Your task to perform on an android device: Open a new window in the chrome app Image 0: 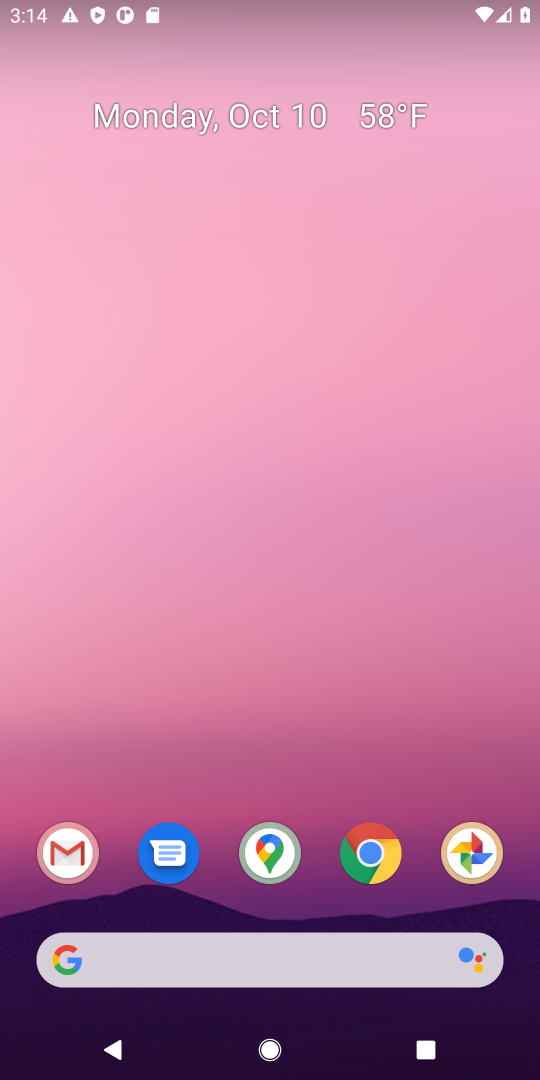
Step 0: click (385, 869)
Your task to perform on an android device: Open a new window in the chrome app Image 1: 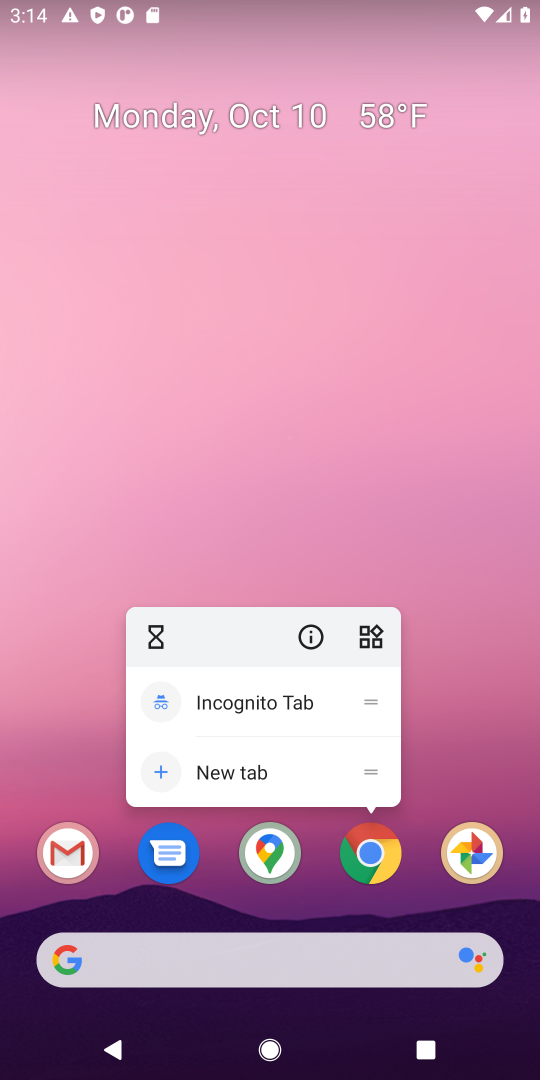
Step 1: click (363, 852)
Your task to perform on an android device: Open a new window in the chrome app Image 2: 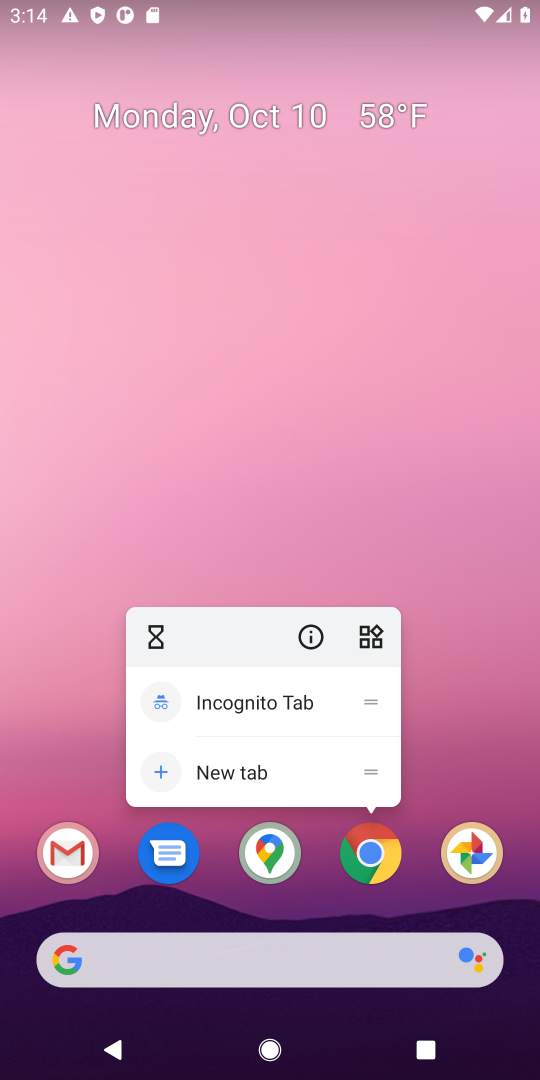
Step 2: click (377, 860)
Your task to perform on an android device: Open a new window in the chrome app Image 3: 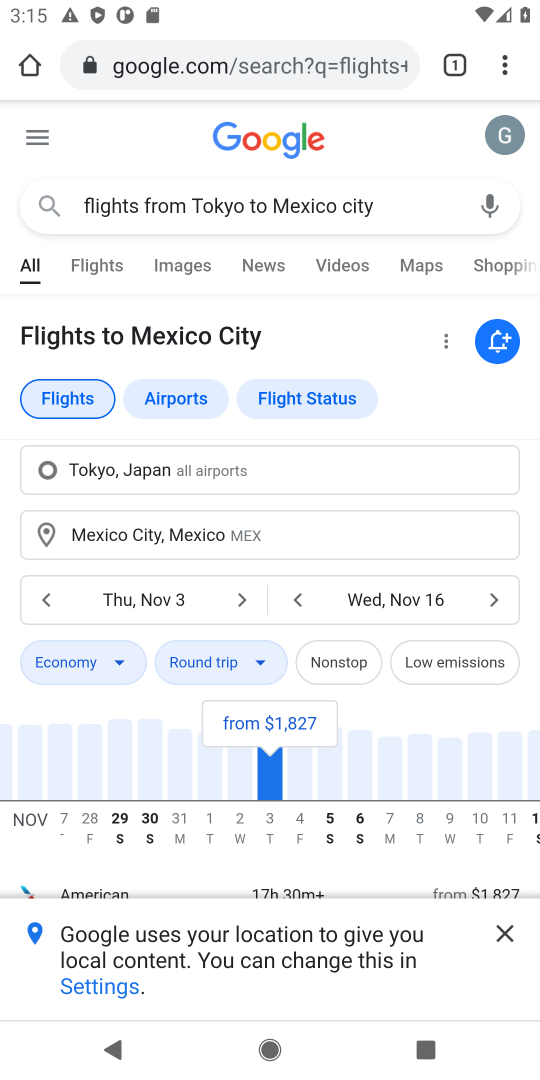
Step 3: click (453, 59)
Your task to perform on an android device: Open a new window in the chrome app Image 4: 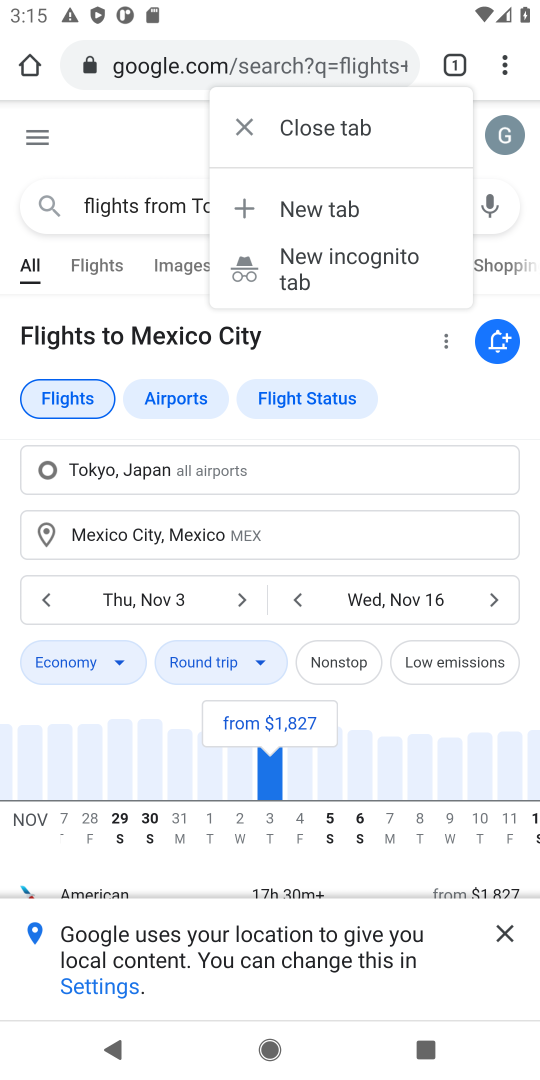
Step 4: click (337, 191)
Your task to perform on an android device: Open a new window in the chrome app Image 5: 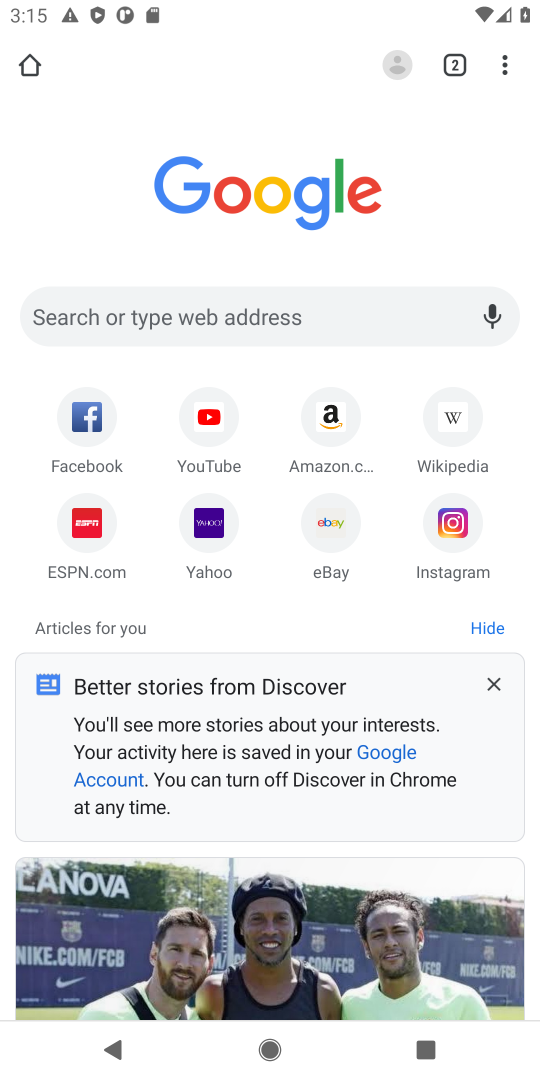
Step 5: task complete